Your task to perform on an android device: toggle translation in the chrome app Image 0: 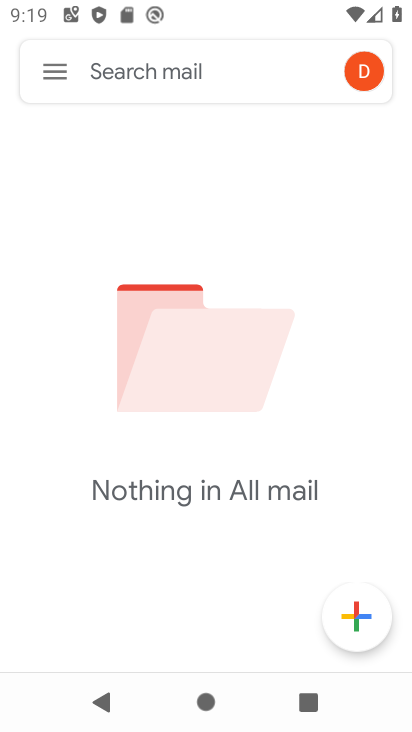
Step 0: press home button
Your task to perform on an android device: toggle translation in the chrome app Image 1: 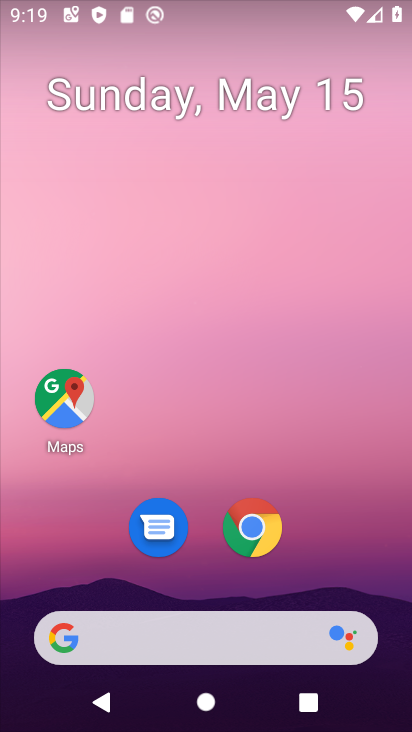
Step 1: click (260, 543)
Your task to perform on an android device: toggle translation in the chrome app Image 2: 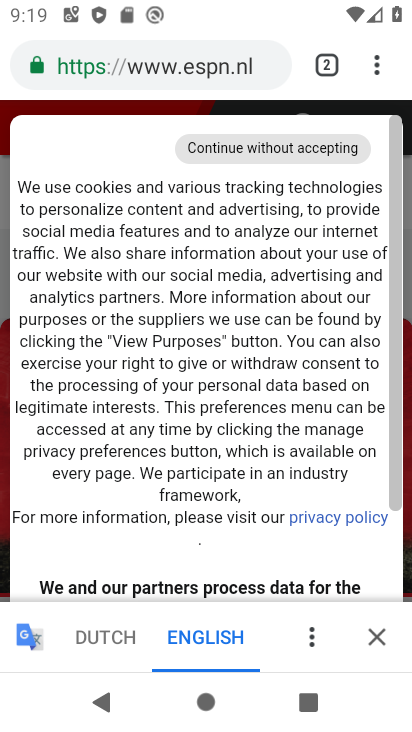
Step 2: click (361, 63)
Your task to perform on an android device: toggle translation in the chrome app Image 3: 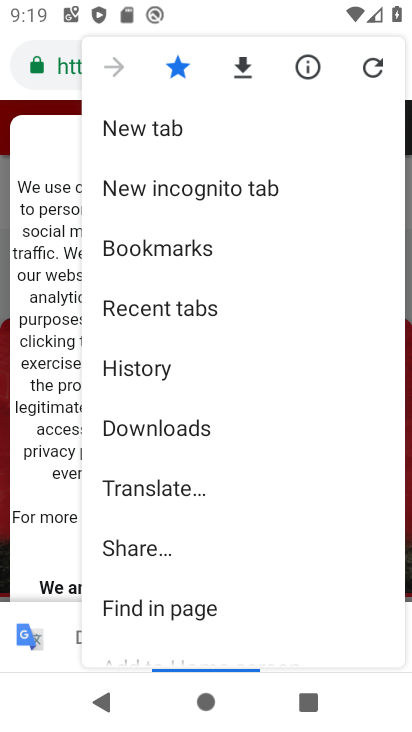
Step 3: drag from (258, 555) to (258, 115)
Your task to perform on an android device: toggle translation in the chrome app Image 4: 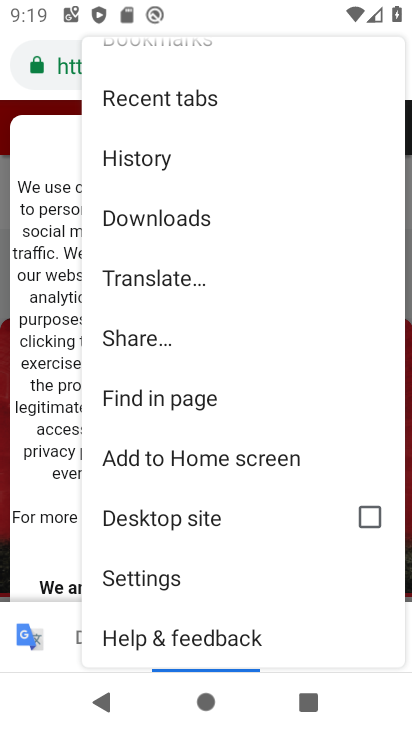
Step 4: click (259, 591)
Your task to perform on an android device: toggle translation in the chrome app Image 5: 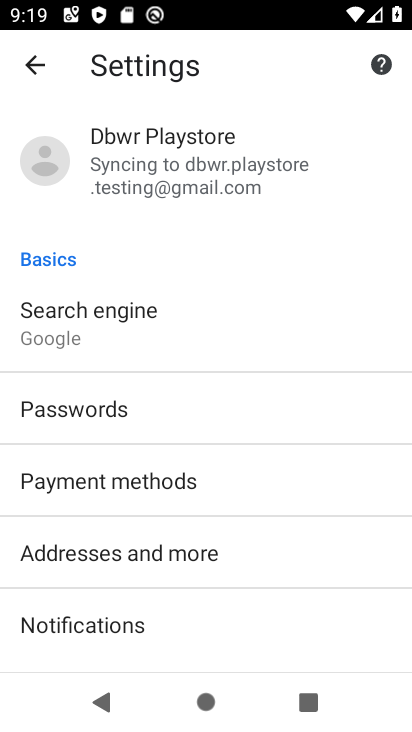
Step 5: drag from (261, 628) to (229, 162)
Your task to perform on an android device: toggle translation in the chrome app Image 6: 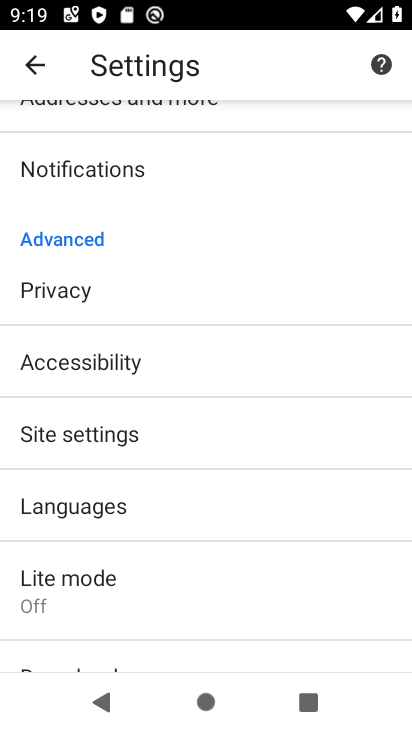
Step 6: click (272, 517)
Your task to perform on an android device: toggle translation in the chrome app Image 7: 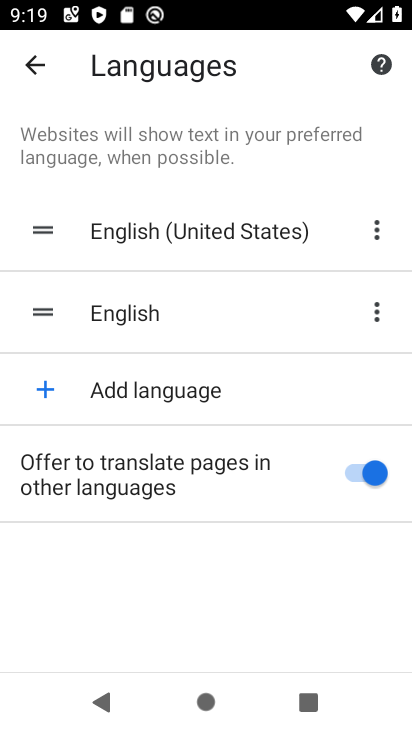
Step 7: click (351, 465)
Your task to perform on an android device: toggle translation in the chrome app Image 8: 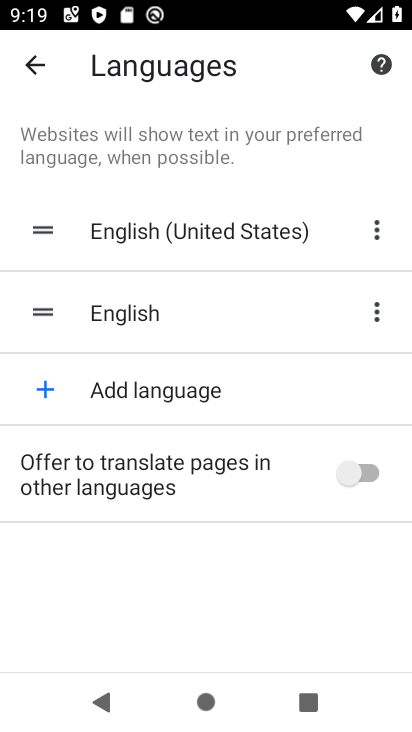
Step 8: task complete